Your task to perform on an android device: Find coffee shops on Maps Image 0: 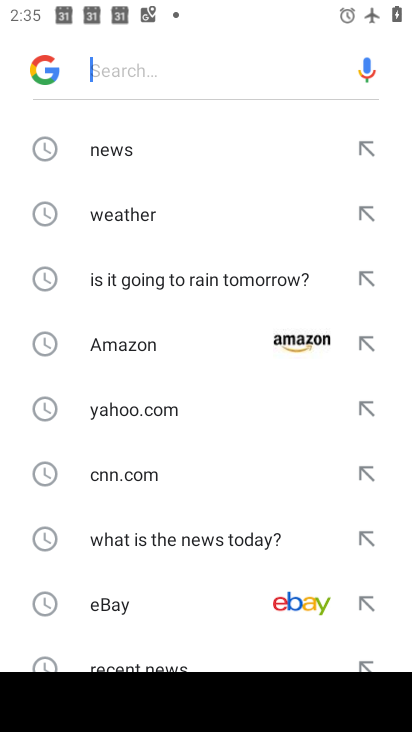
Step 0: press home button
Your task to perform on an android device: Find coffee shops on Maps Image 1: 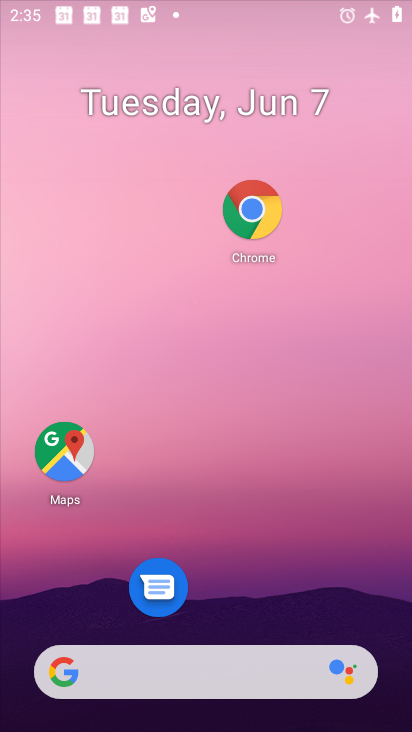
Step 1: drag from (236, 665) to (218, 230)
Your task to perform on an android device: Find coffee shops on Maps Image 2: 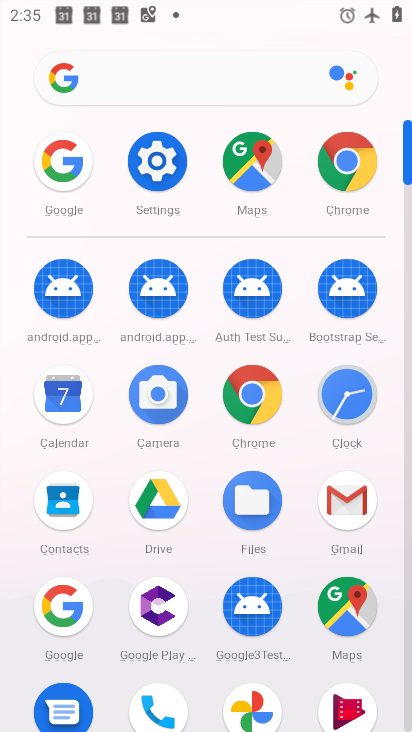
Step 2: click (369, 612)
Your task to perform on an android device: Find coffee shops on Maps Image 3: 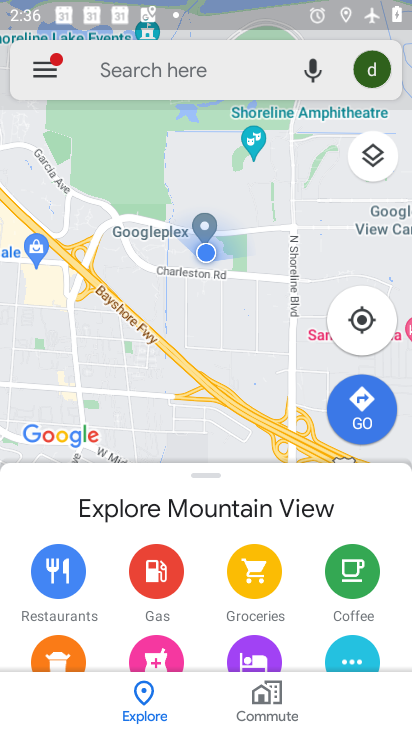
Step 3: click (159, 68)
Your task to perform on an android device: Find coffee shops on Maps Image 4: 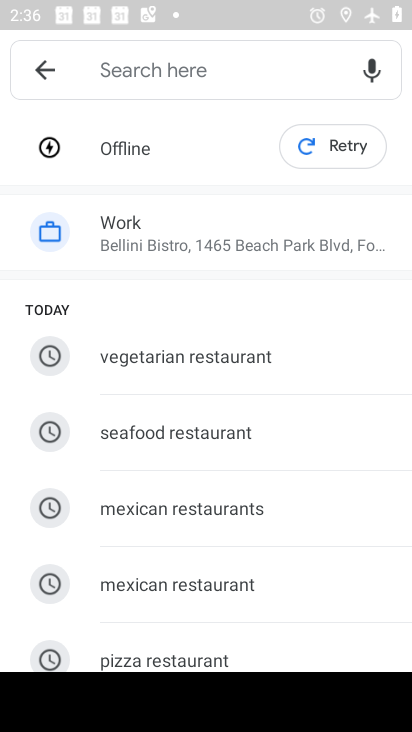
Step 4: type "coffee shops"
Your task to perform on an android device: Find coffee shops on Maps Image 5: 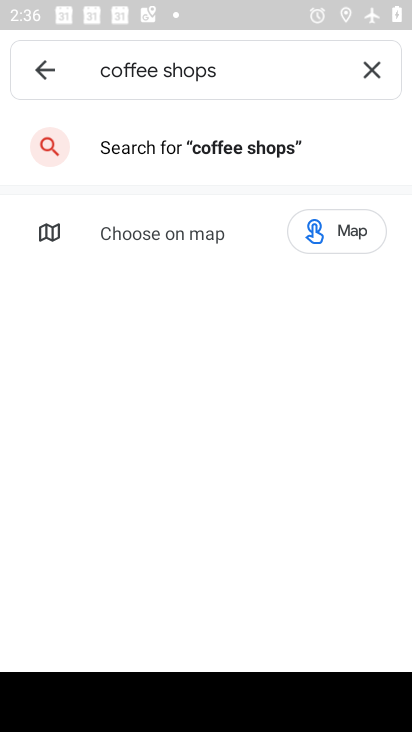
Step 5: task complete